Your task to perform on an android device: What's the weather today? Image 0: 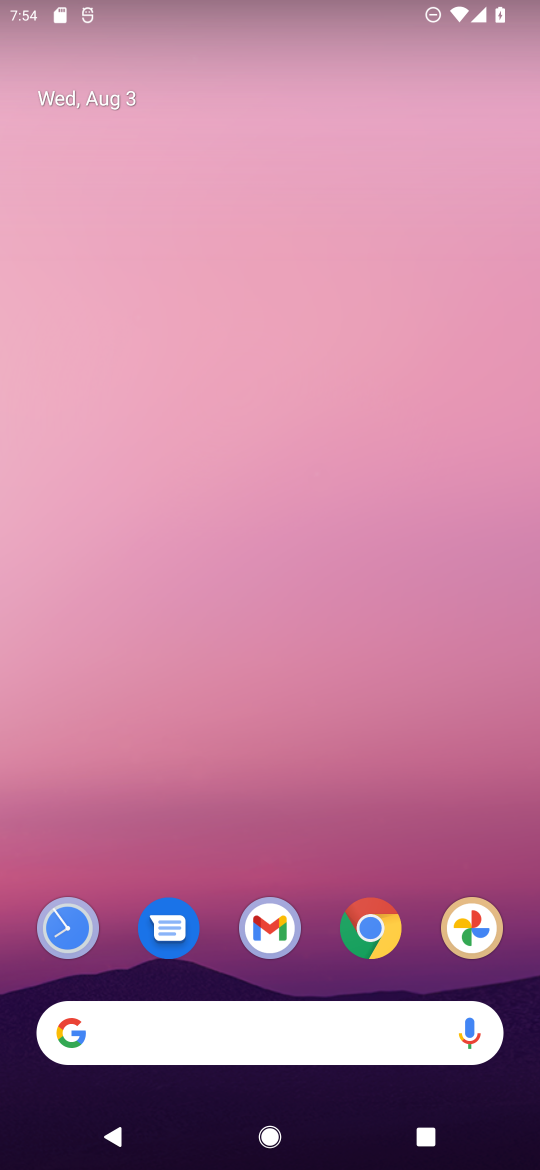
Step 0: click (384, 945)
Your task to perform on an android device: What's the weather today? Image 1: 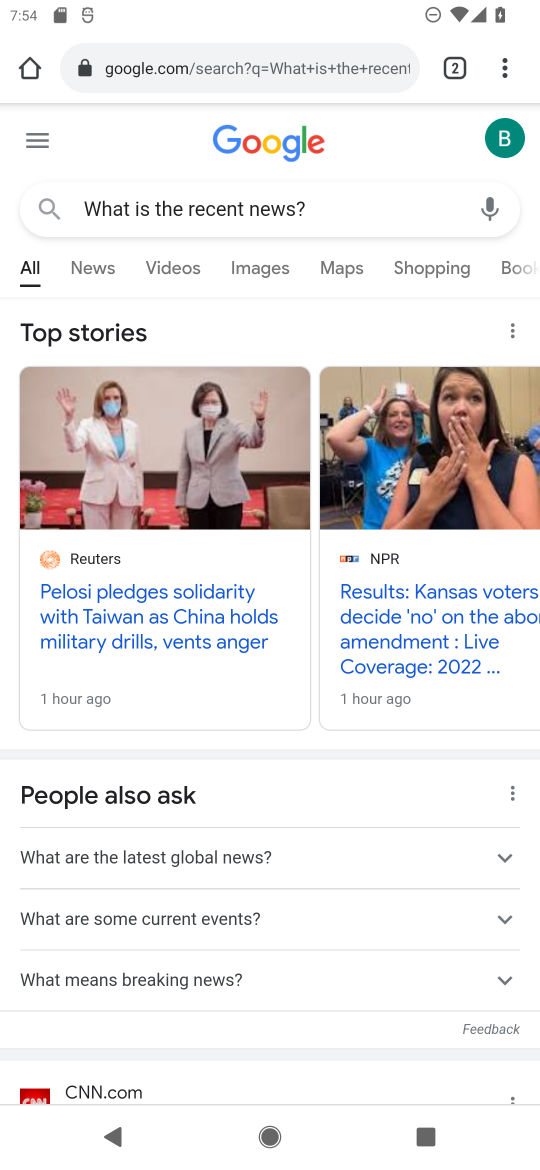
Step 1: click (277, 59)
Your task to perform on an android device: What's the weather today? Image 2: 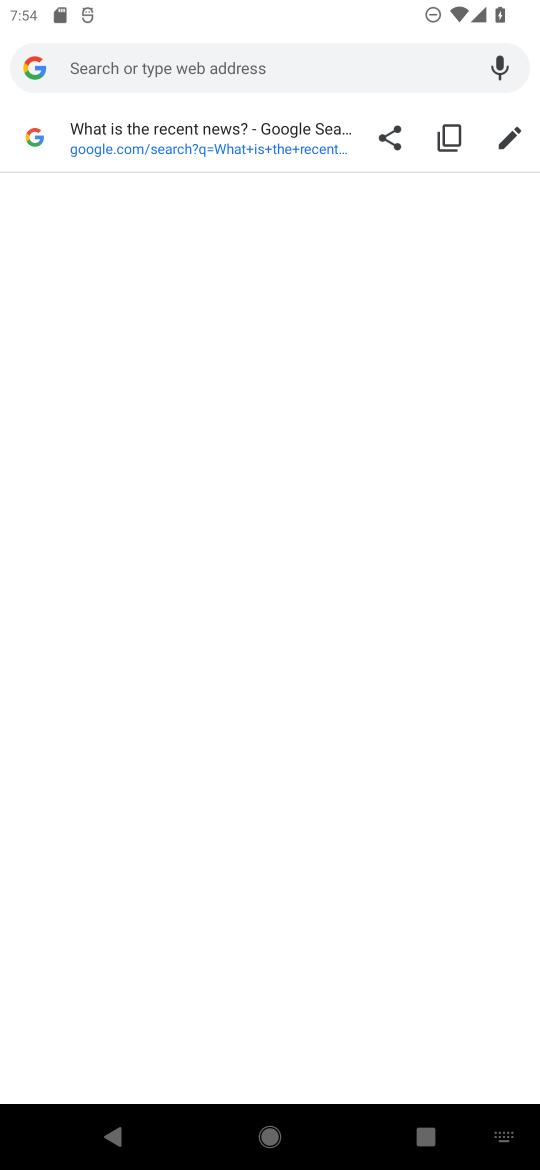
Step 2: type "What's the weather today?"
Your task to perform on an android device: What's the weather today? Image 3: 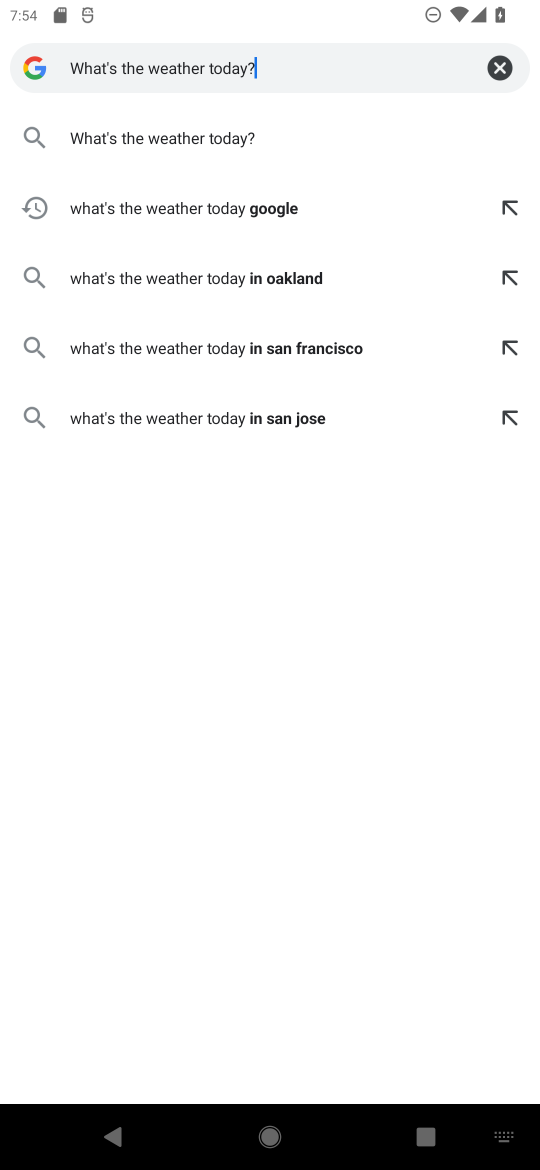
Step 3: click (399, 133)
Your task to perform on an android device: What's the weather today? Image 4: 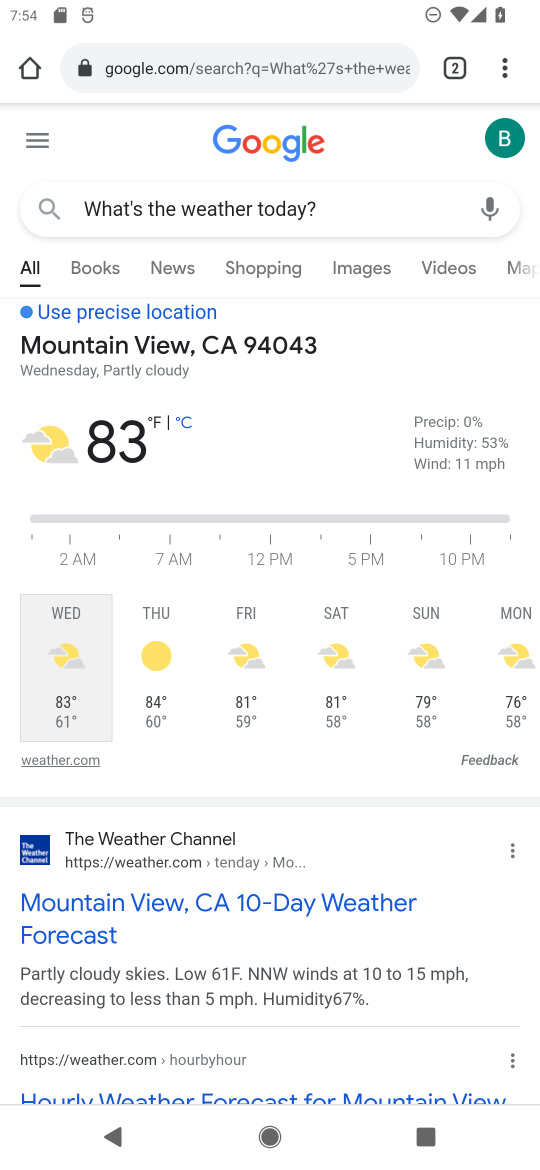
Step 4: task complete